Your task to perform on an android device: toggle sleep mode Image 0: 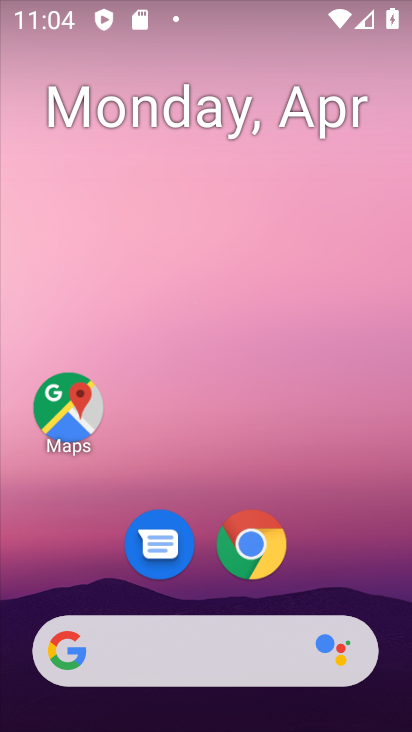
Step 0: drag from (368, 567) to (359, 36)
Your task to perform on an android device: toggle sleep mode Image 1: 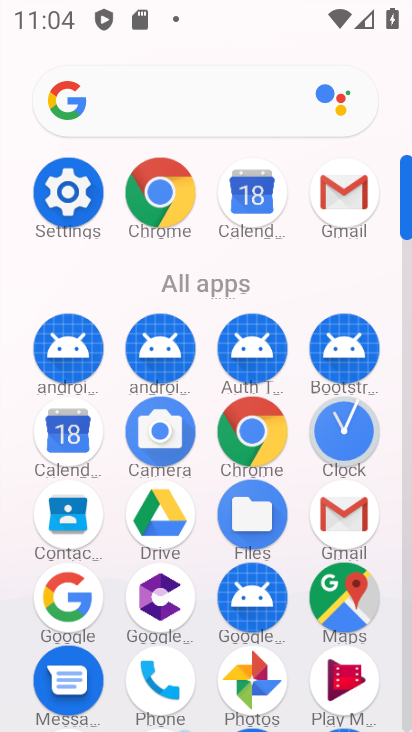
Step 1: click (61, 200)
Your task to perform on an android device: toggle sleep mode Image 2: 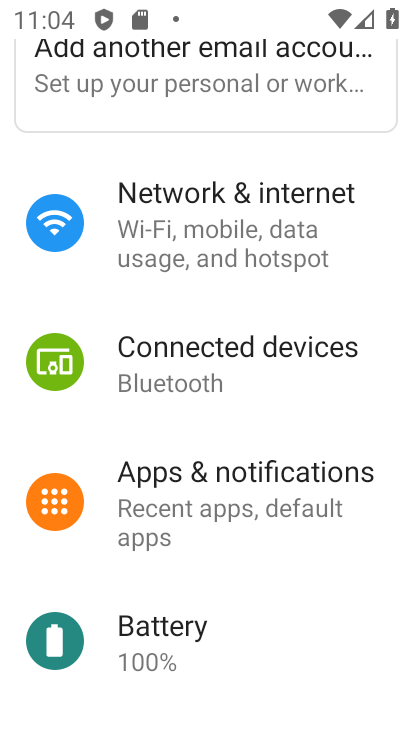
Step 2: drag from (377, 588) to (367, 296)
Your task to perform on an android device: toggle sleep mode Image 3: 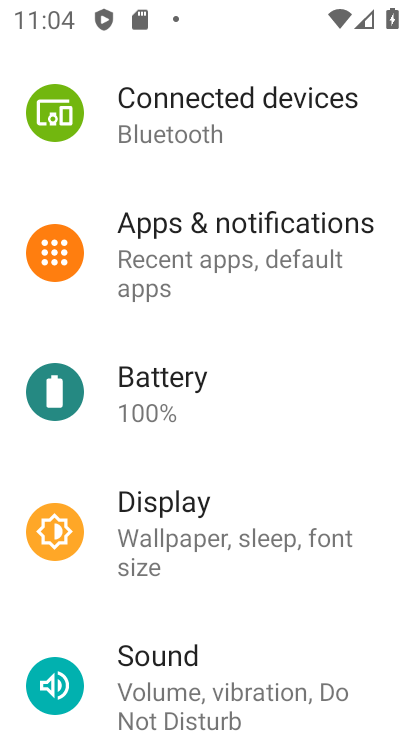
Step 3: click (164, 537)
Your task to perform on an android device: toggle sleep mode Image 4: 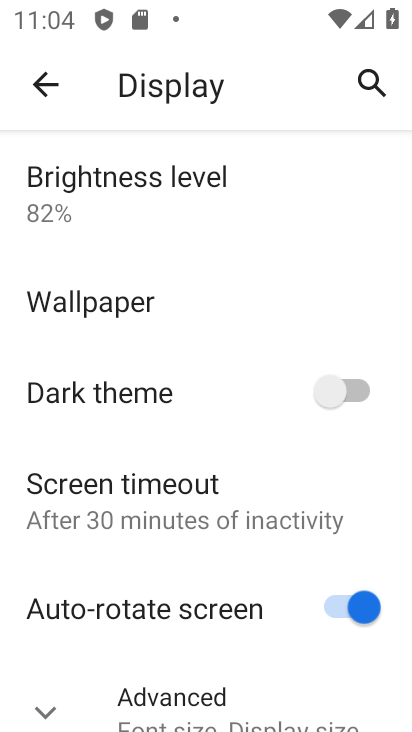
Step 4: drag from (211, 601) to (183, 294)
Your task to perform on an android device: toggle sleep mode Image 5: 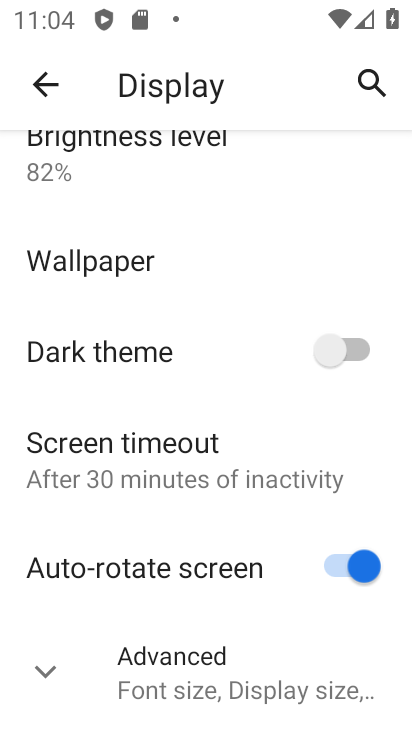
Step 5: click (46, 678)
Your task to perform on an android device: toggle sleep mode Image 6: 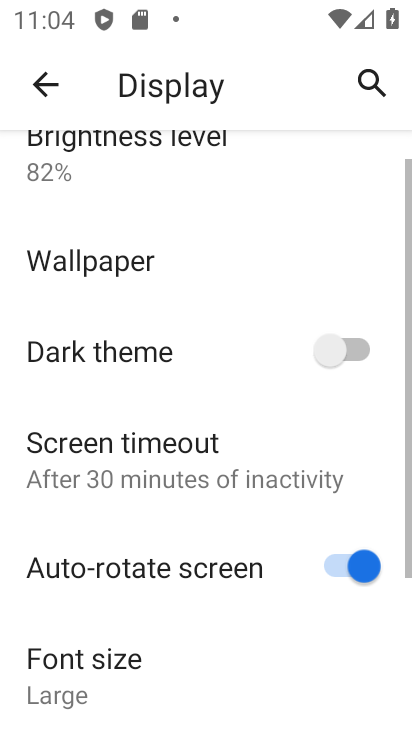
Step 6: task complete